Your task to perform on an android device: Go to privacy settings Image 0: 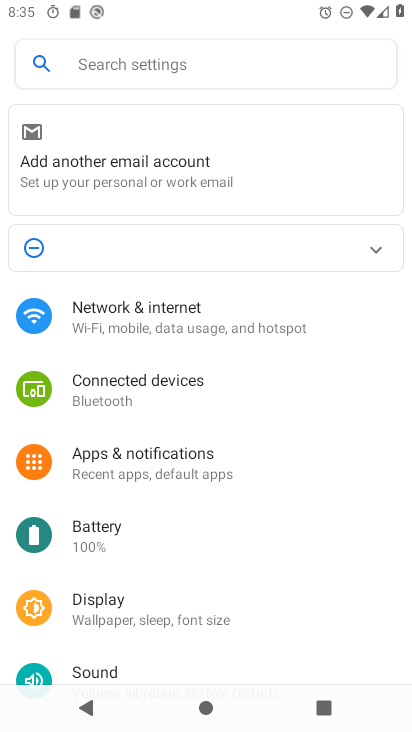
Step 0: drag from (325, 559) to (320, 364)
Your task to perform on an android device: Go to privacy settings Image 1: 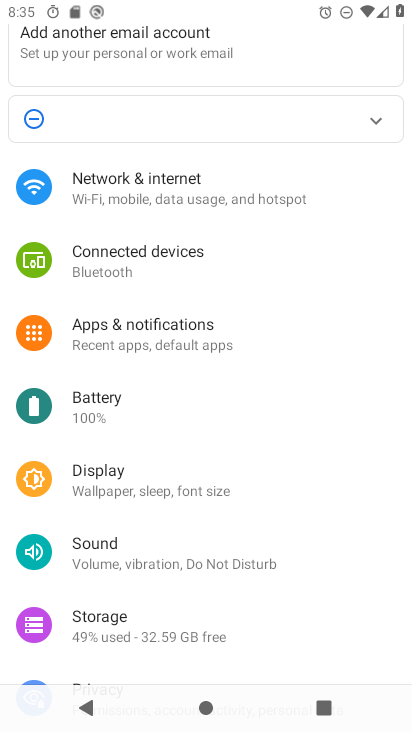
Step 1: drag from (274, 591) to (276, 353)
Your task to perform on an android device: Go to privacy settings Image 2: 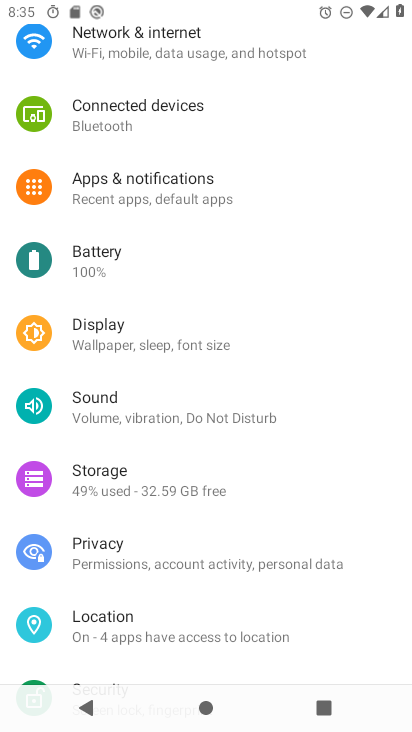
Step 2: click (95, 558)
Your task to perform on an android device: Go to privacy settings Image 3: 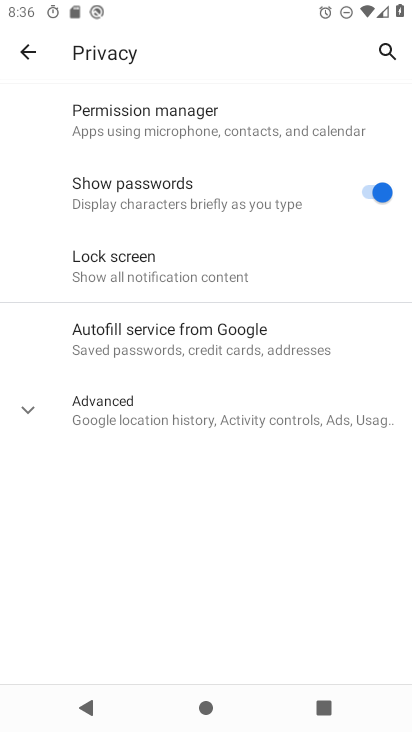
Step 3: click (27, 416)
Your task to perform on an android device: Go to privacy settings Image 4: 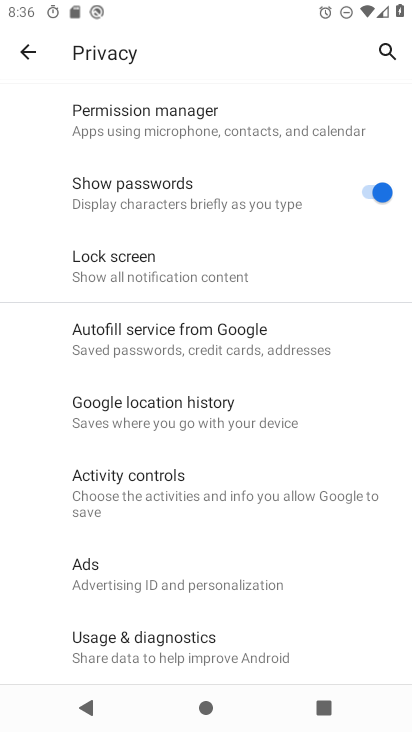
Step 4: task complete